Your task to perform on an android device: See recent photos Image 0: 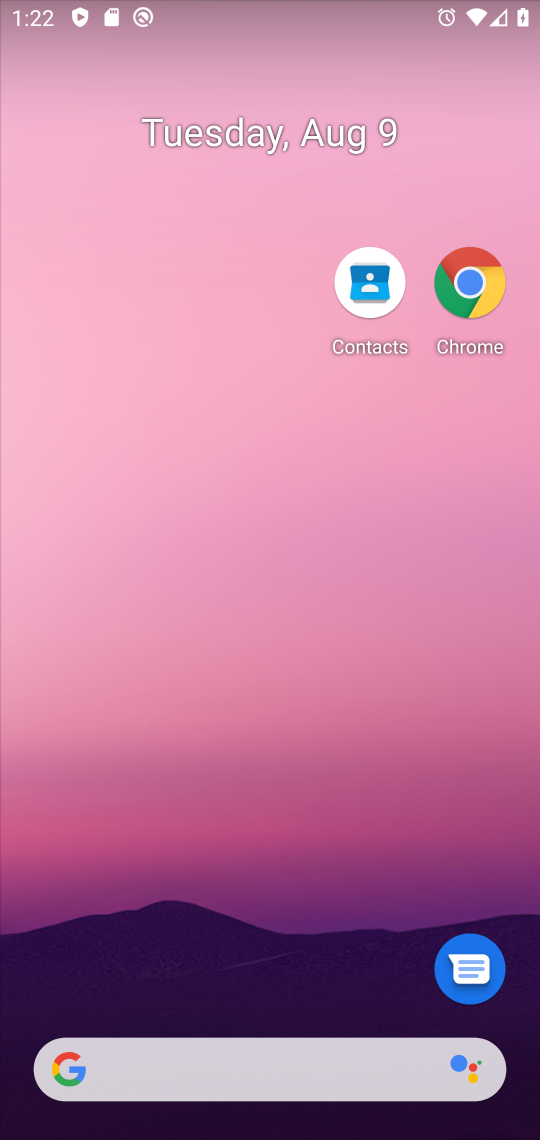
Step 0: drag from (288, 351) to (377, 233)
Your task to perform on an android device: See recent photos Image 1: 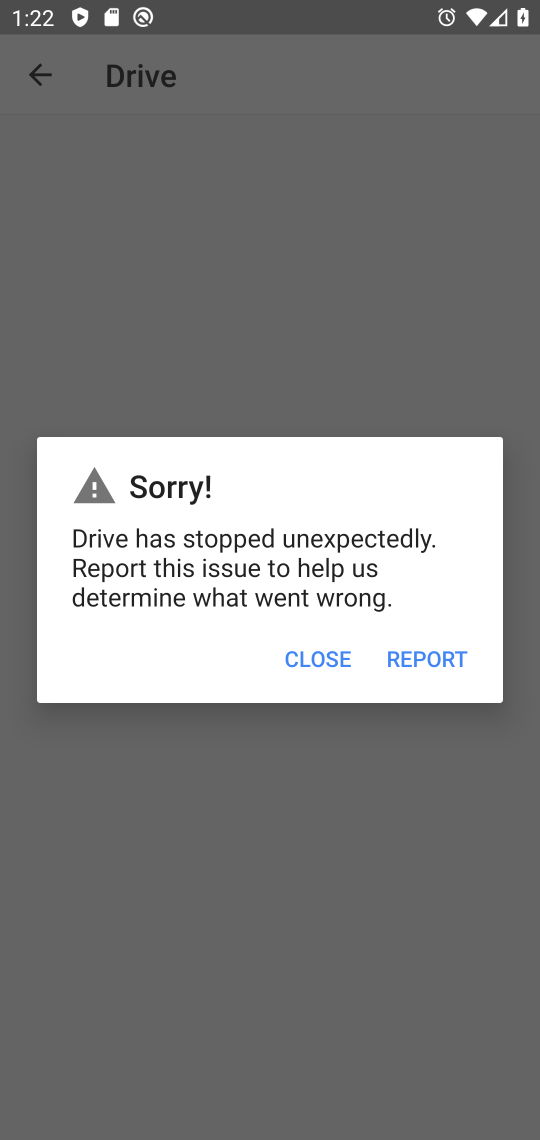
Step 1: press home button
Your task to perform on an android device: See recent photos Image 2: 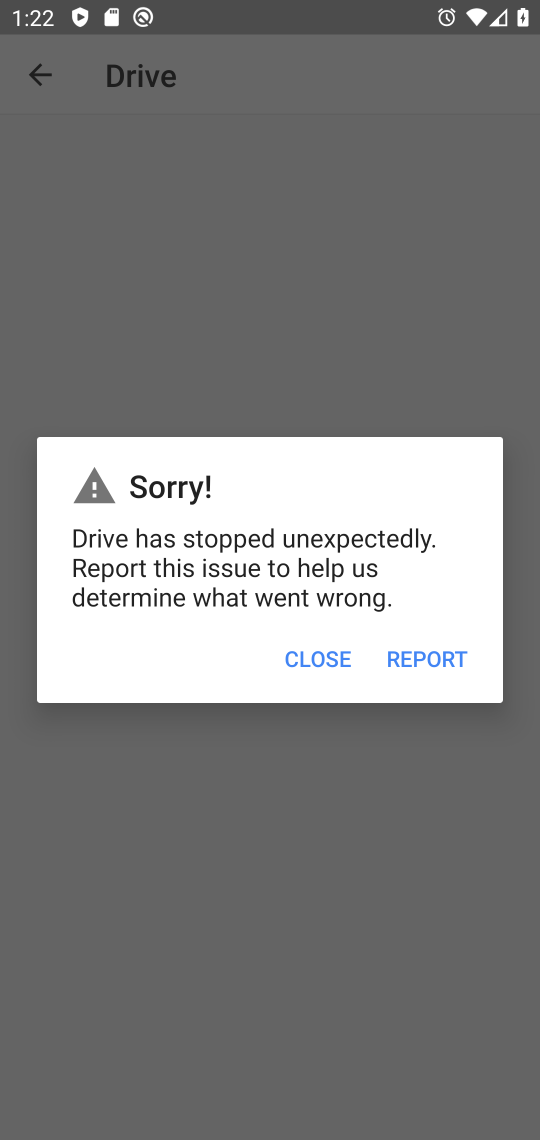
Step 2: press home button
Your task to perform on an android device: See recent photos Image 3: 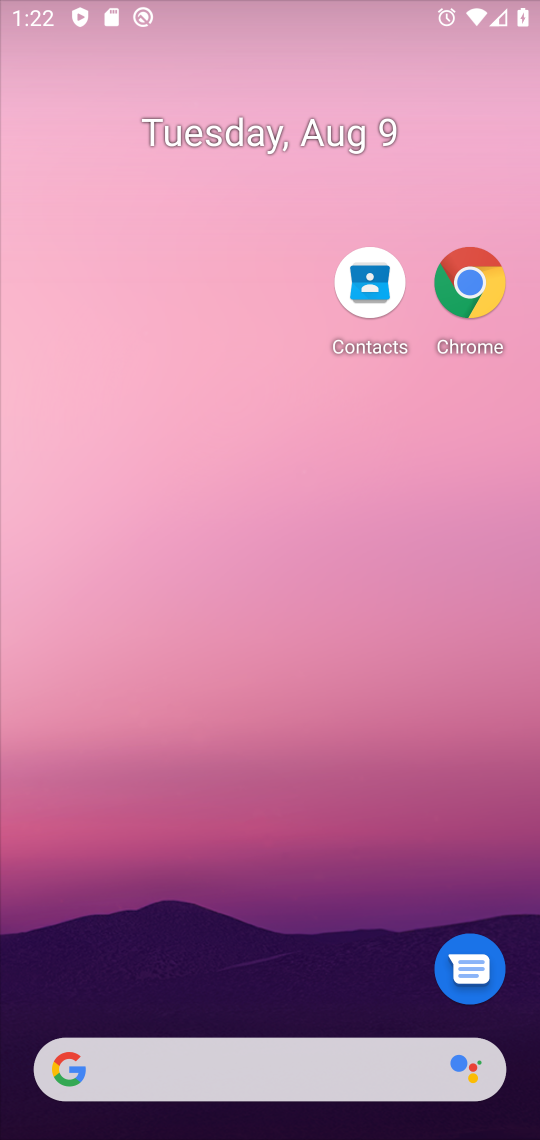
Step 3: drag from (330, 780) to (429, 181)
Your task to perform on an android device: See recent photos Image 4: 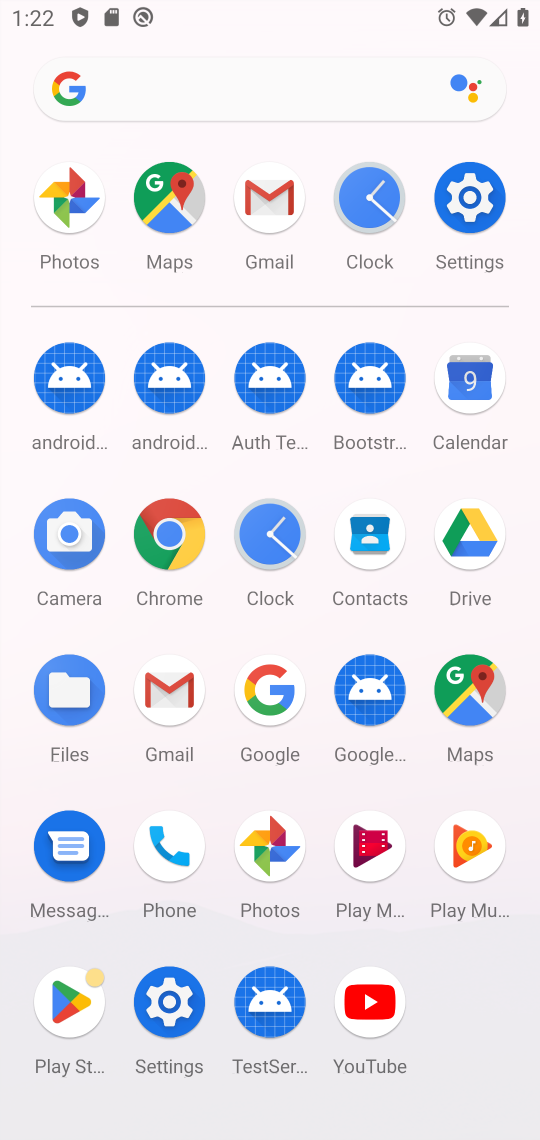
Step 4: drag from (316, 941) to (284, 559)
Your task to perform on an android device: See recent photos Image 5: 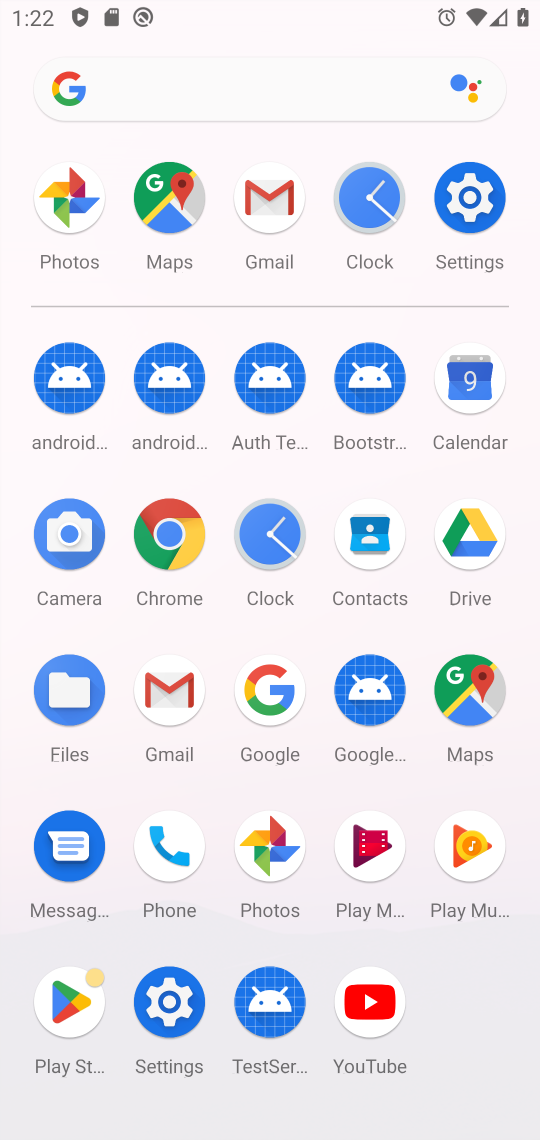
Step 5: drag from (324, 1013) to (330, 546)
Your task to perform on an android device: See recent photos Image 6: 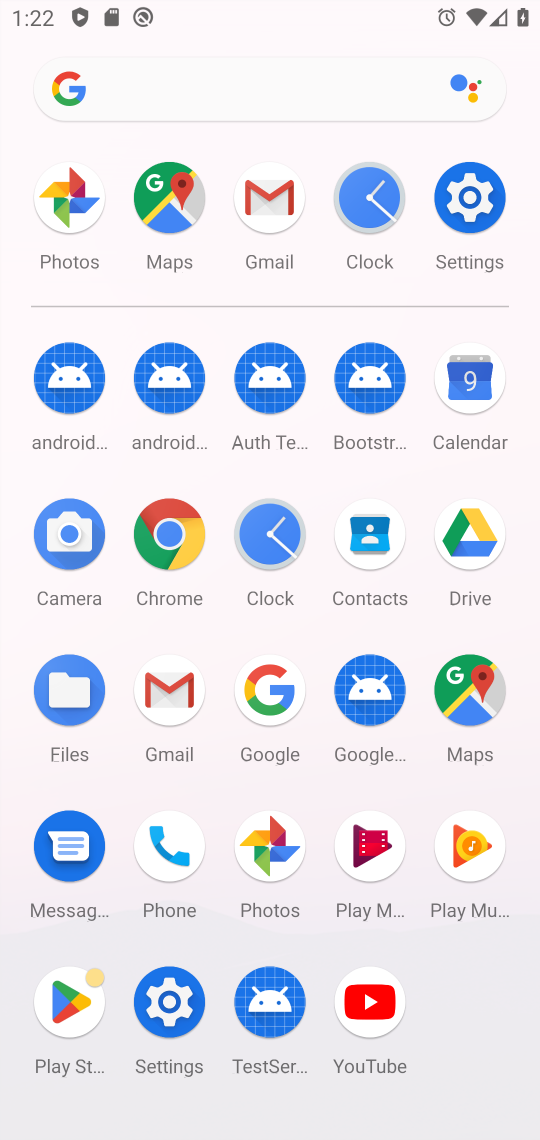
Step 6: click (273, 840)
Your task to perform on an android device: See recent photos Image 7: 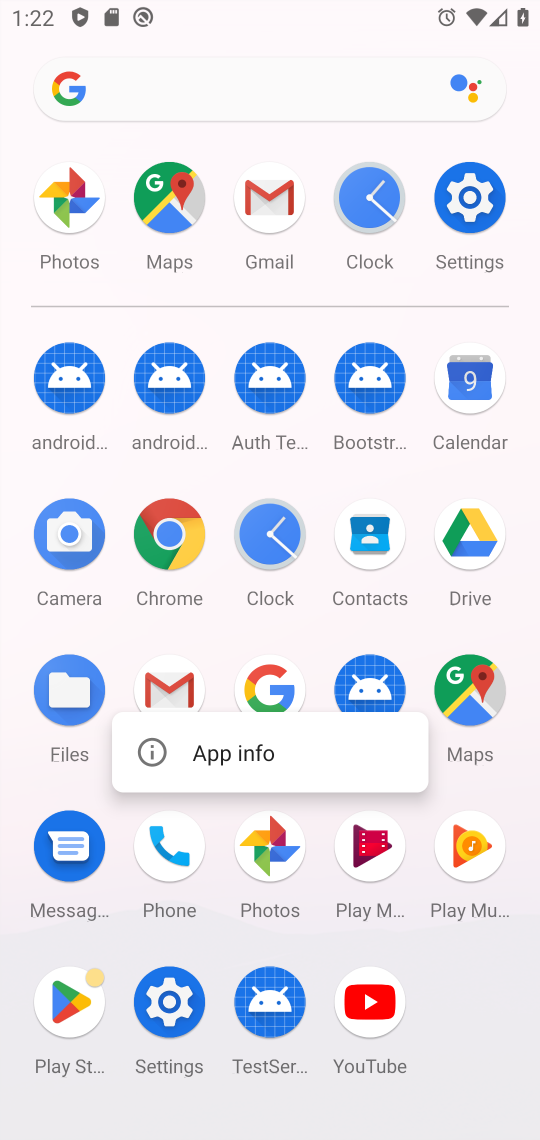
Step 7: click (183, 766)
Your task to perform on an android device: See recent photos Image 8: 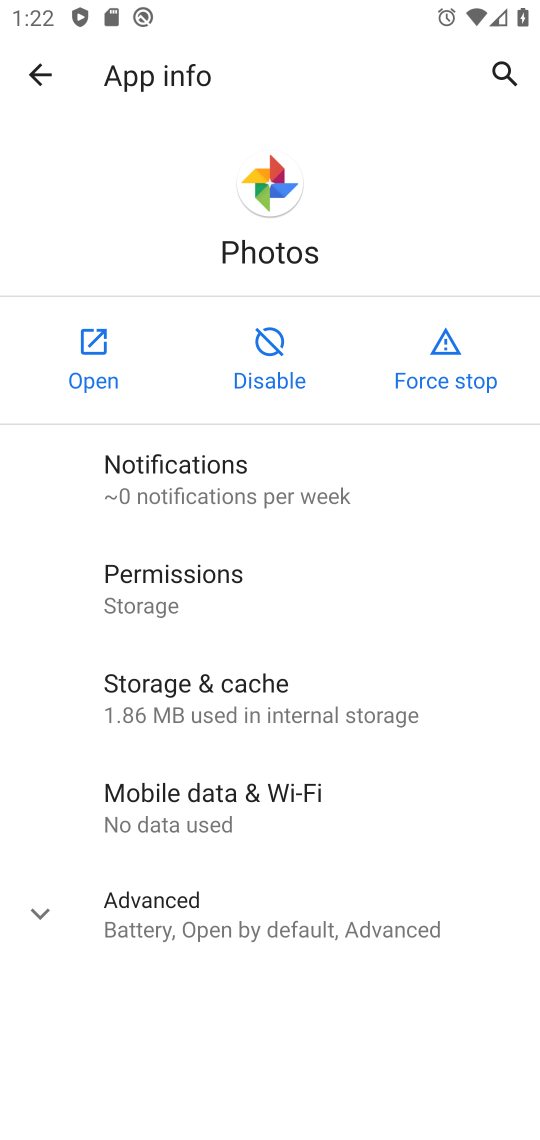
Step 8: click (74, 348)
Your task to perform on an android device: See recent photos Image 9: 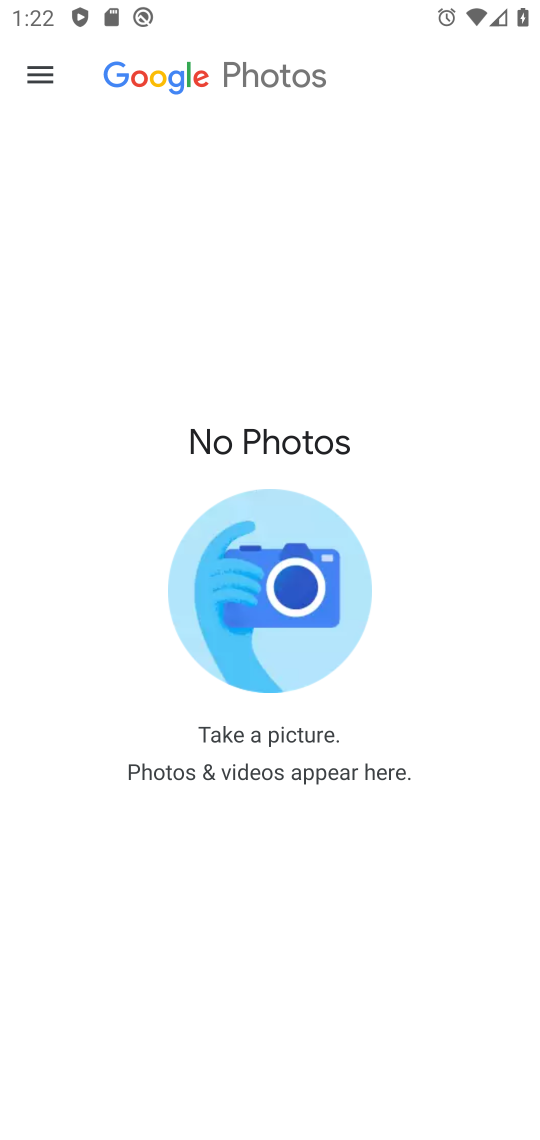
Step 9: drag from (312, 802) to (292, 464)
Your task to perform on an android device: See recent photos Image 10: 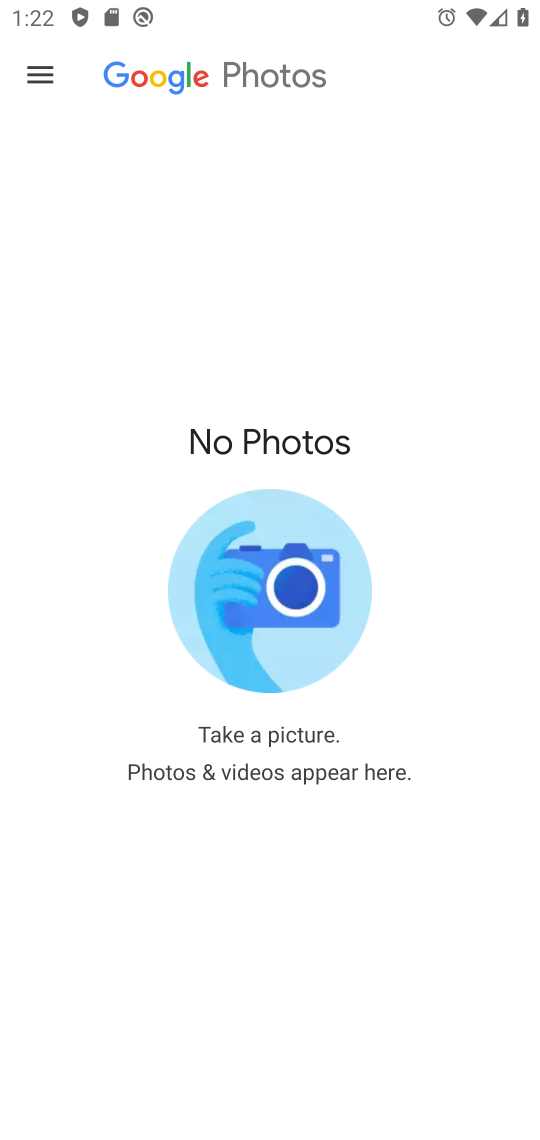
Step 10: drag from (275, 1003) to (349, 201)
Your task to perform on an android device: See recent photos Image 11: 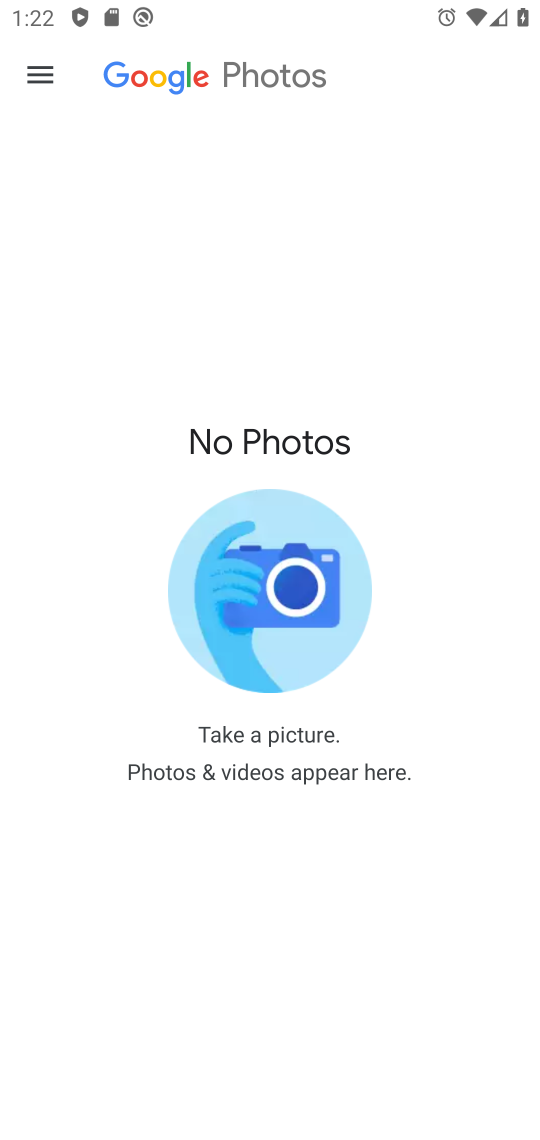
Step 11: click (25, 80)
Your task to perform on an android device: See recent photos Image 12: 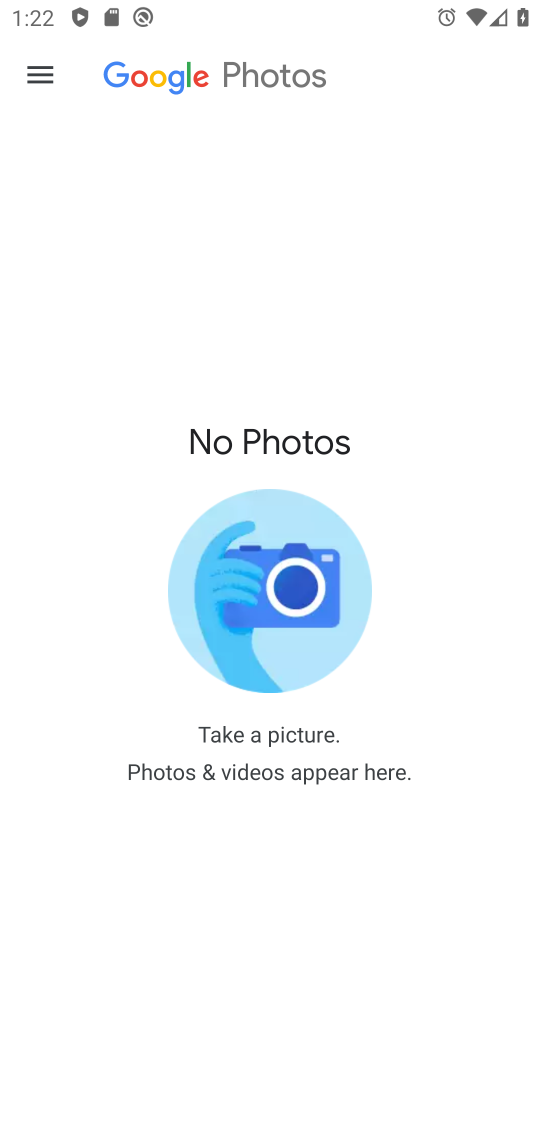
Step 12: click (56, 58)
Your task to perform on an android device: See recent photos Image 13: 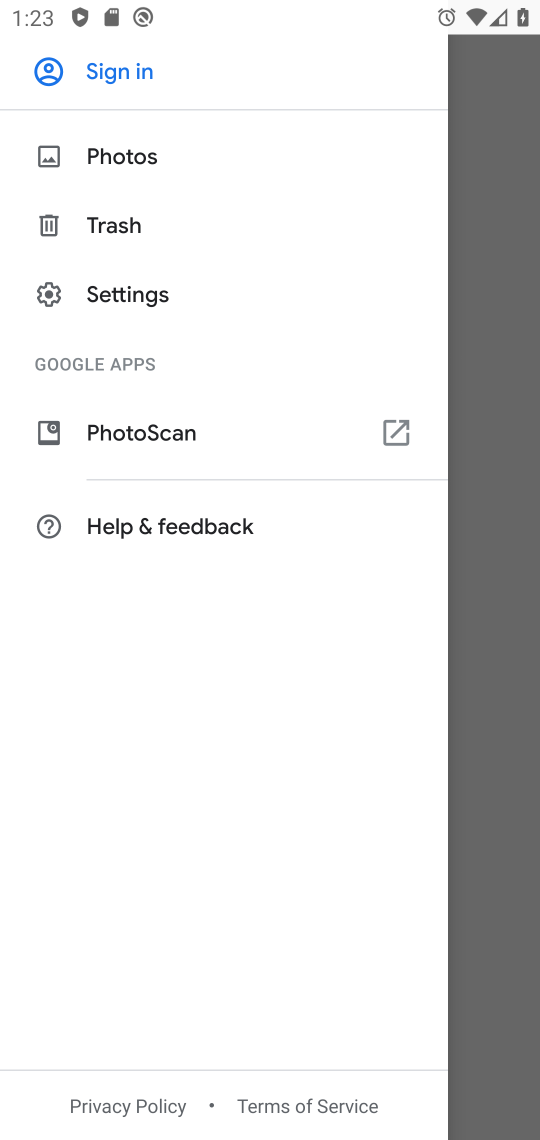
Step 13: click (145, 224)
Your task to perform on an android device: See recent photos Image 14: 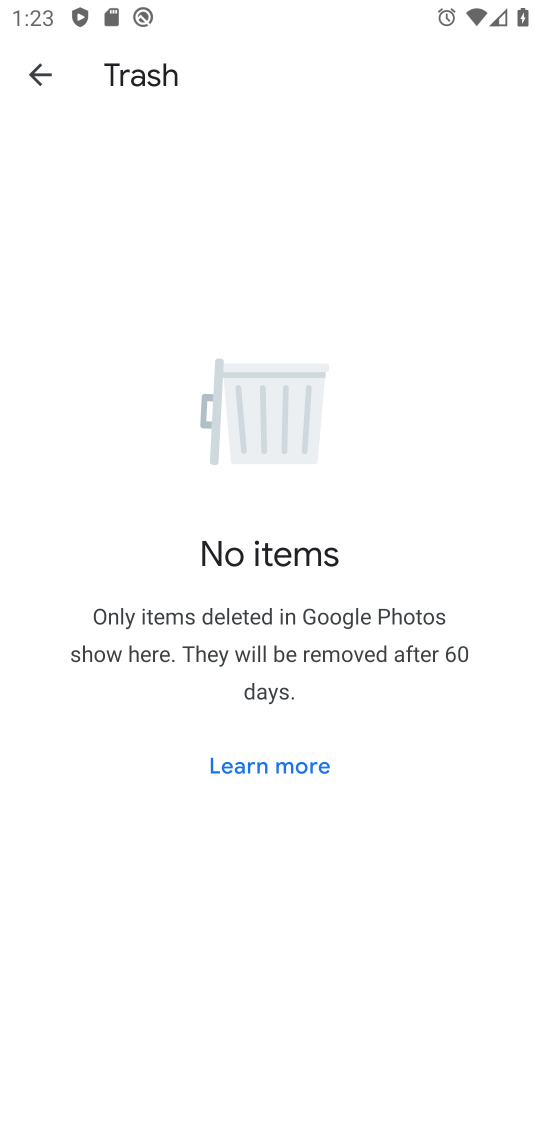
Step 14: click (43, 84)
Your task to perform on an android device: See recent photos Image 15: 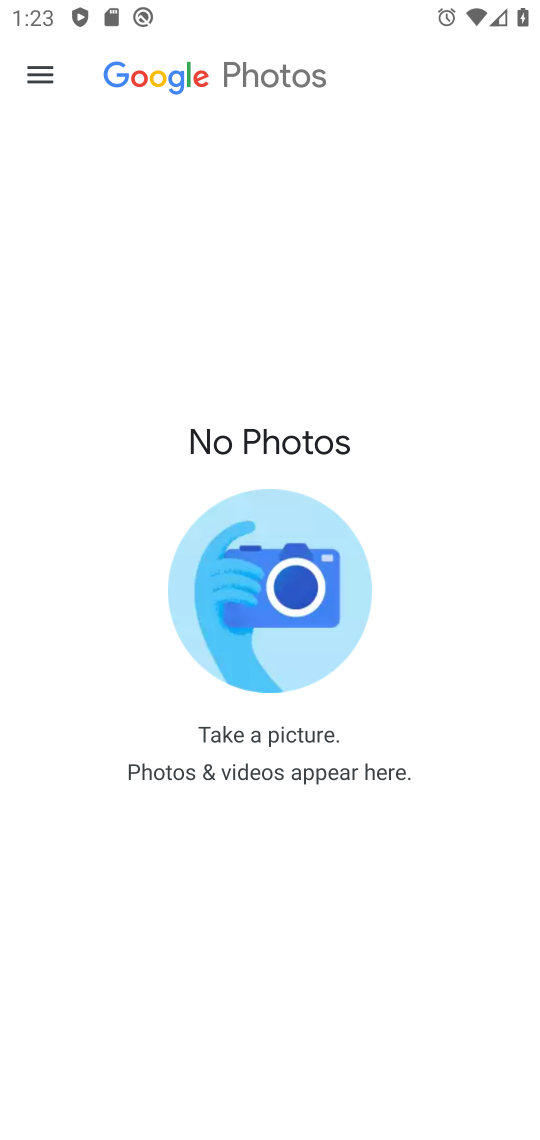
Step 15: click (53, 81)
Your task to perform on an android device: See recent photos Image 16: 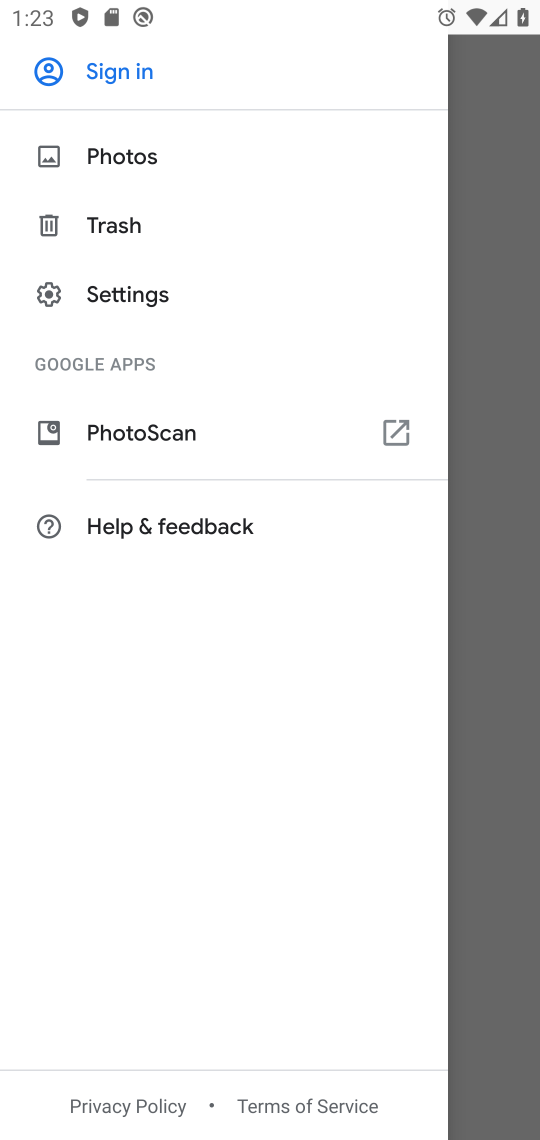
Step 16: click (173, 139)
Your task to perform on an android device: See recent photos Image 17: 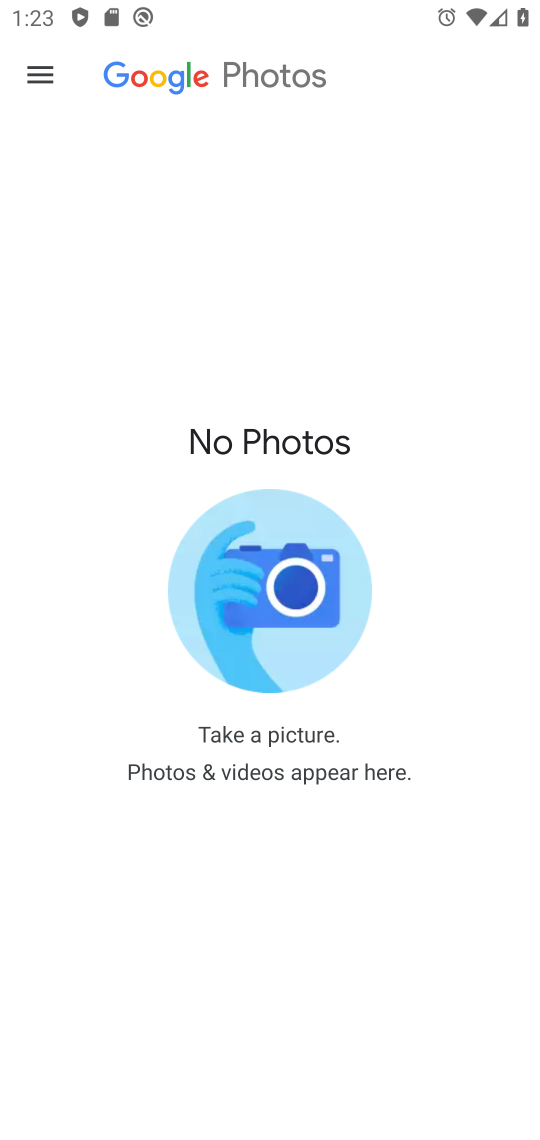
Step 17: task complete